Your task to perform on an android device: Show me popular videos on Youtube Image 0: 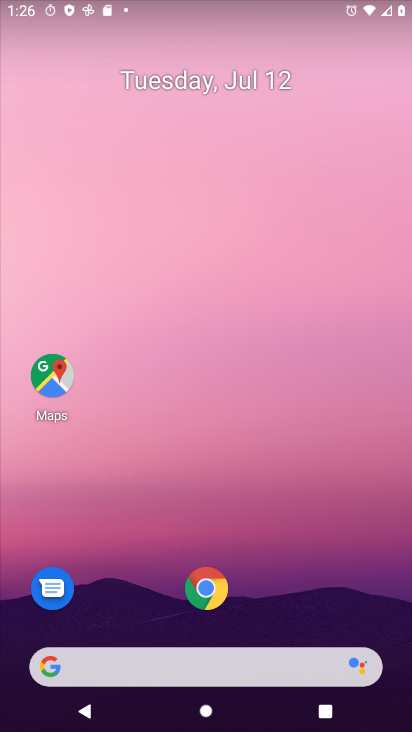
Step 0: drag from (192, 671) to (290, 78)
Your task to perform on an android device: Show me popular videos on Youtube Image 1: 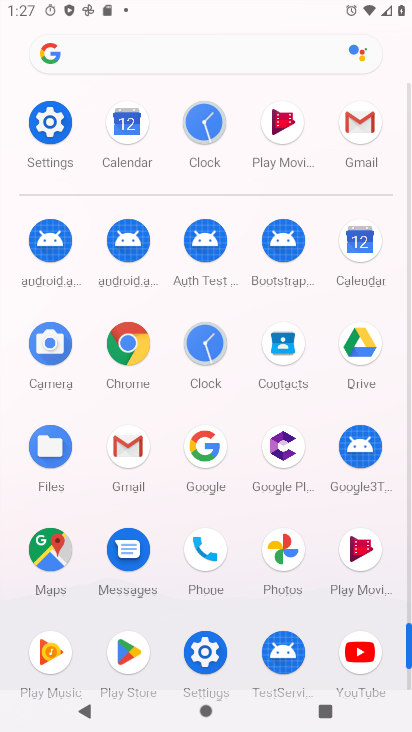
Step 1: click (358, 645)
Your task to perform on an android device: Show me popular videos on Youtube Image 2: 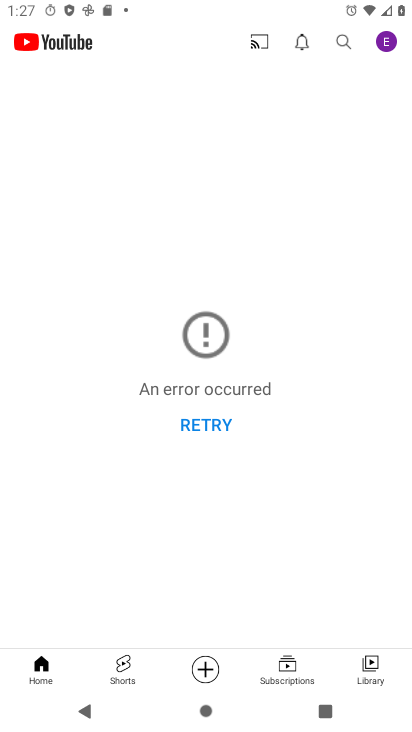
Step 2: click (205, 417)
Your task to perform on an android device: Show me popular videos on Youtube Image 3: 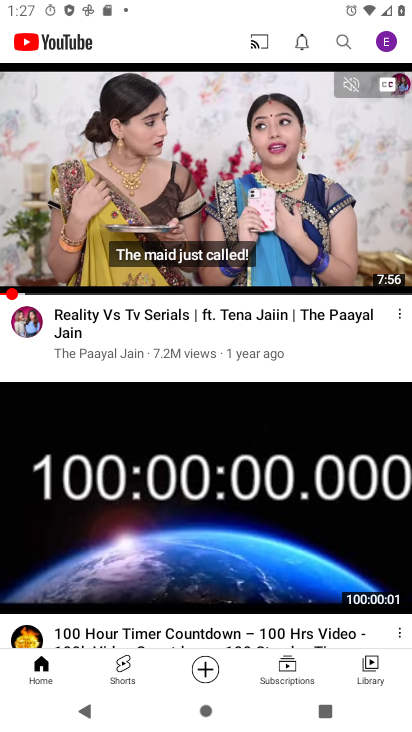
Step 3: task complete